Your task to perform on an android device: install app "Move to iOS" Image 0: 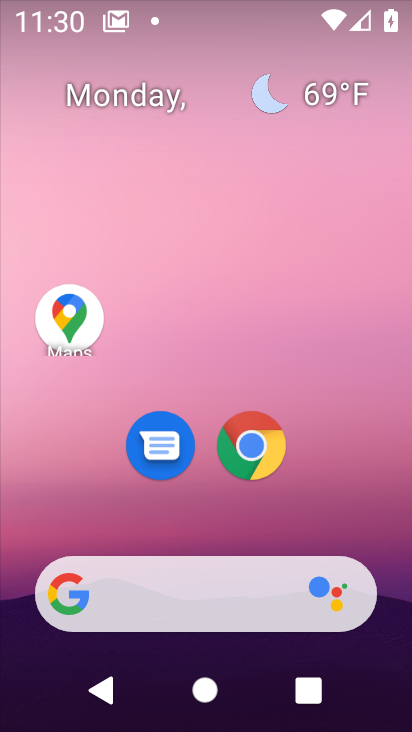
Step 0: drag from (184, 567) to (198, 148)
Your task to perform on an android device: install app "Move to iOS" Image 1: 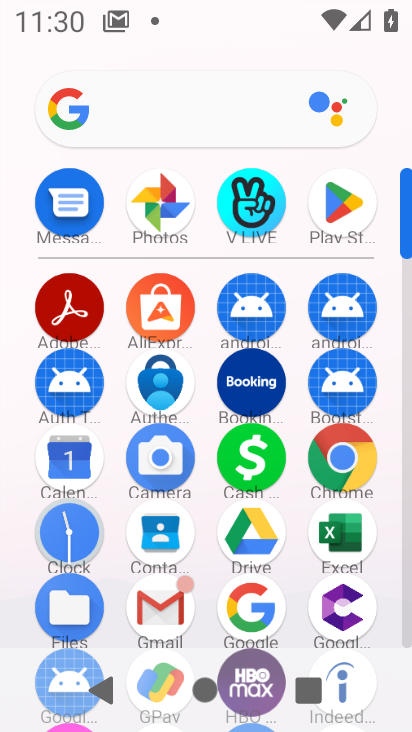
Step 1: click (332, 209)
Your task to perform on an android device: install app "Move to iOS" Image 2: 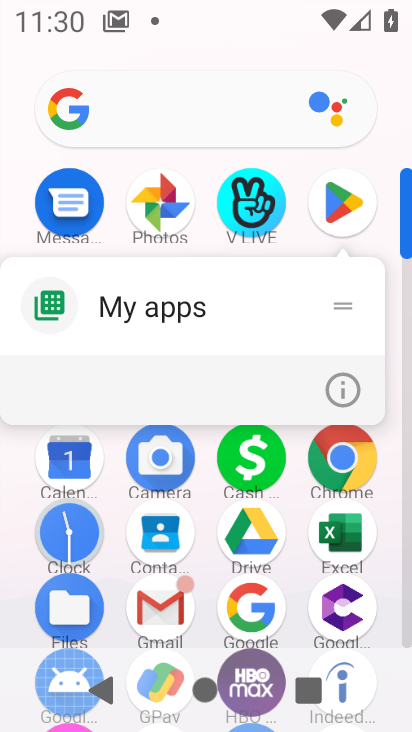
Step 2: click (348, 194)
Your task to perform on an android device: install app "Move to iOS" Image 3: 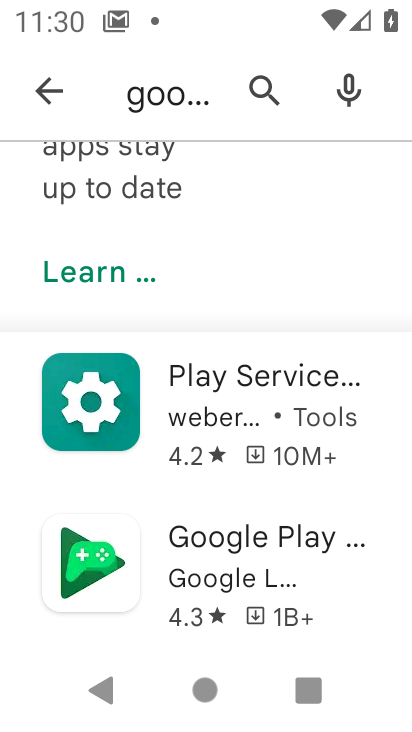
Step 3: click (58, 85)
Your task to perform on an android device: install app "Move to iOS" Image 4: 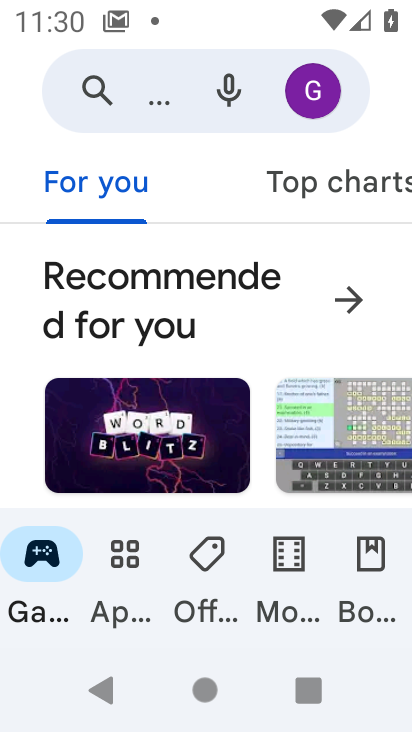
Step 4: click (100, 109)
Your task to perform on an android device: install app "Move to iOS" Image 5: 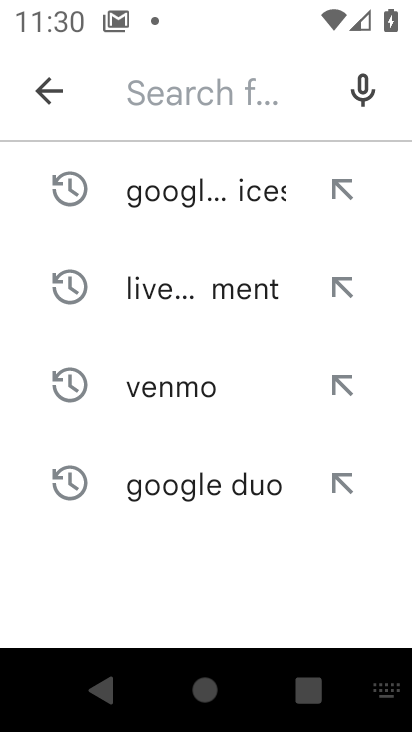
Step 5: type "Move to iOS"
Your task to perform on an android device: install app "Move to iOS" Image 6: 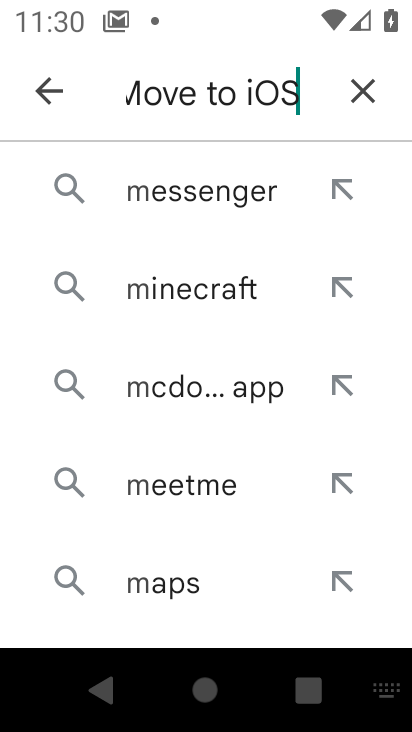
Step 6: type ""
Your task to perform on an android device: install app "Move to iOS" Image 7: 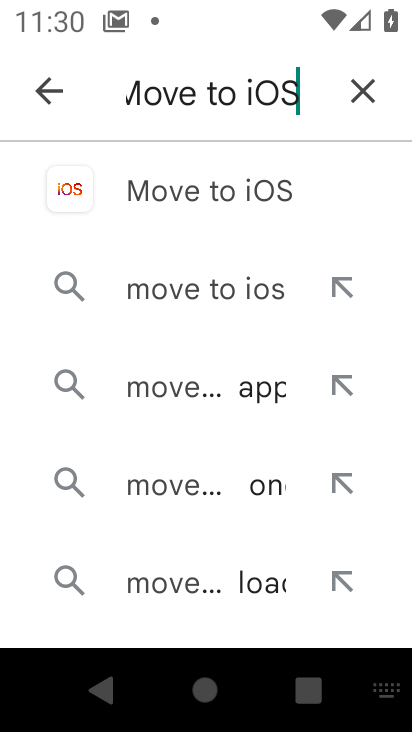
Step 7: click (227, 190)
Your task to perform on an android device: install app "Move to iOS" Image 8: 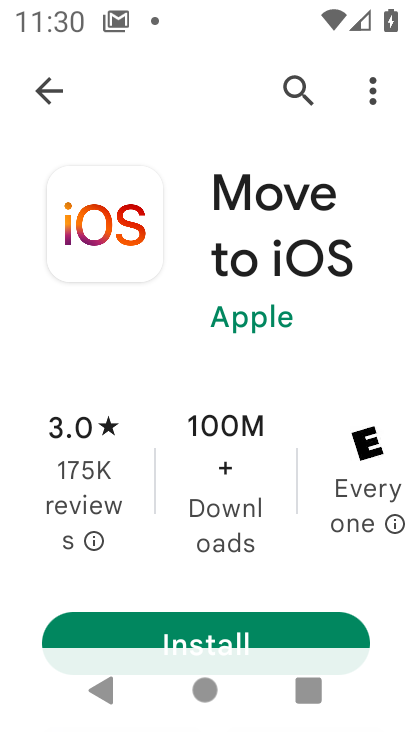
Step 8: drag from (204, 431) to (213, 177)
Your task to perform on an android device: install app "Move to iOS" Image 9: 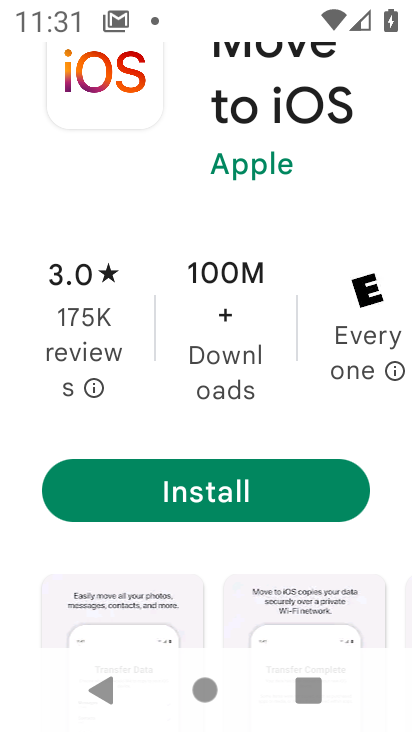
Step 9: click (224, 481)
Your task to perform on an android device: install app "Move to iOS" Image 10: 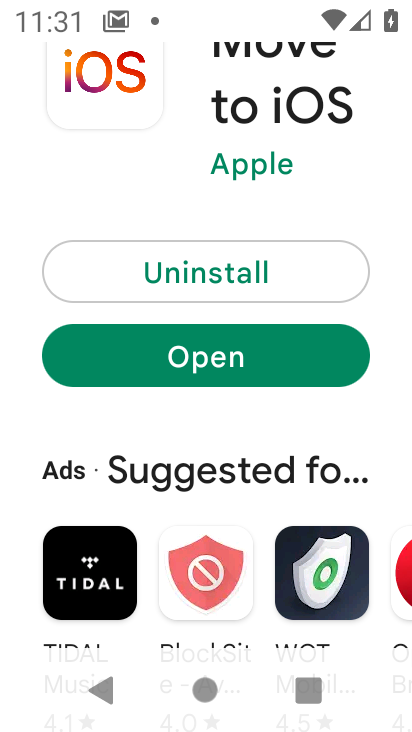
Step 10: task complete